Your task to perform on an android device: Turn on the flashlight Image 0: 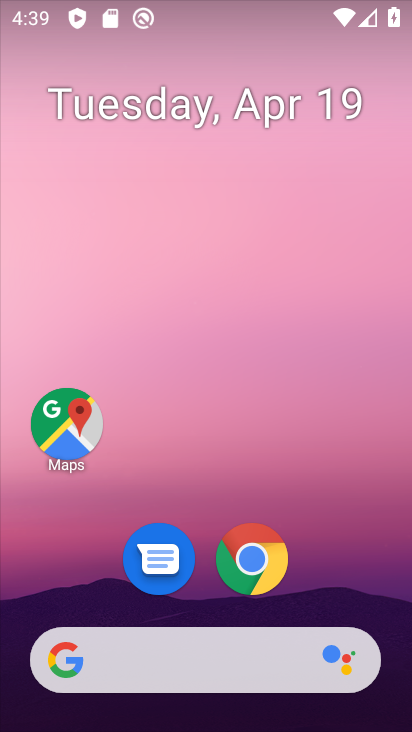
Step 0: drag from (191, 354) to (195, 143)
Your task to perform on an android device: Turn on the flashlight Image 1: 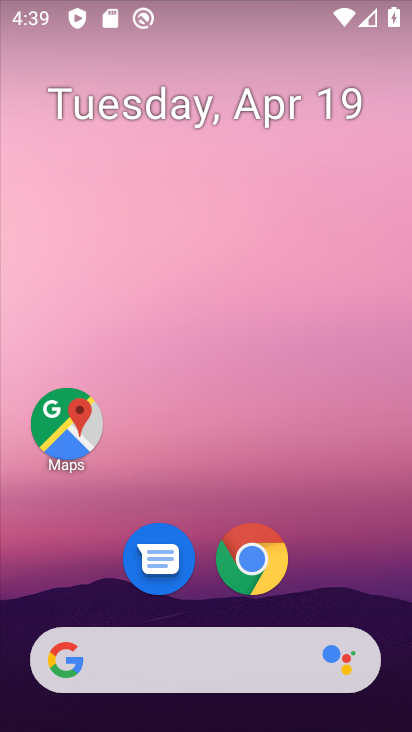
Step 1: drag from (223, 382) to (219, 38)
Your task to perform on an android device: Turn on the flashlight Image 2: 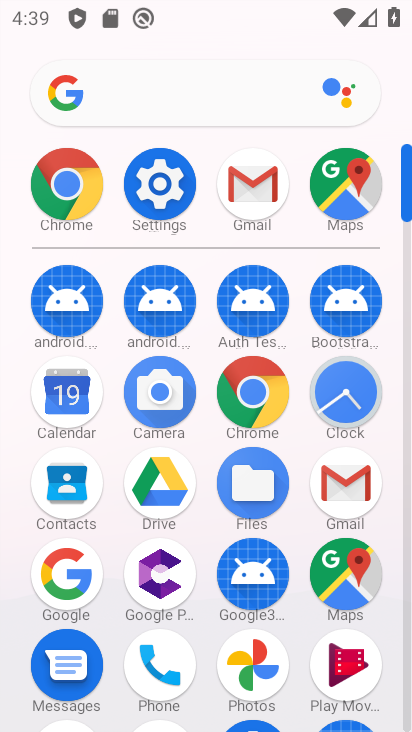
Step 2: click (168, 172)
Your task to perform on an android device: Turn on the flashlight Image 3: 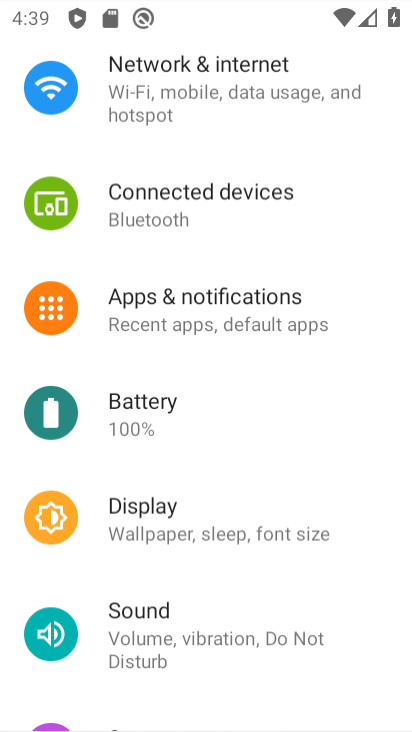
Step 3: click (206, 172)
Your task to perform on an android device: Turn on the flashlight Image 4: 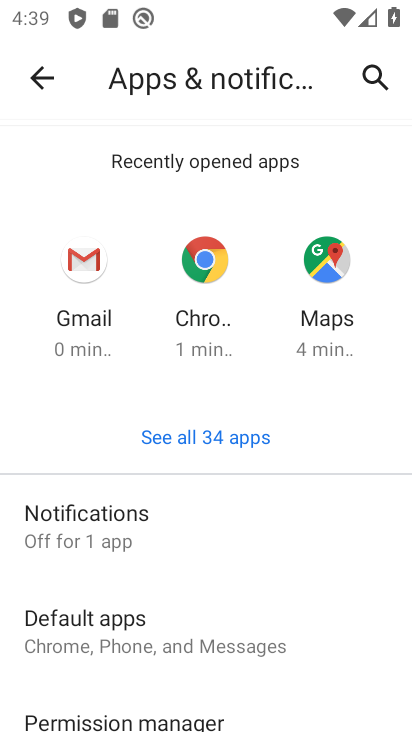
Step 4: task complete